Your task to perform on an android device: open app "The Home Depot" Image 0: 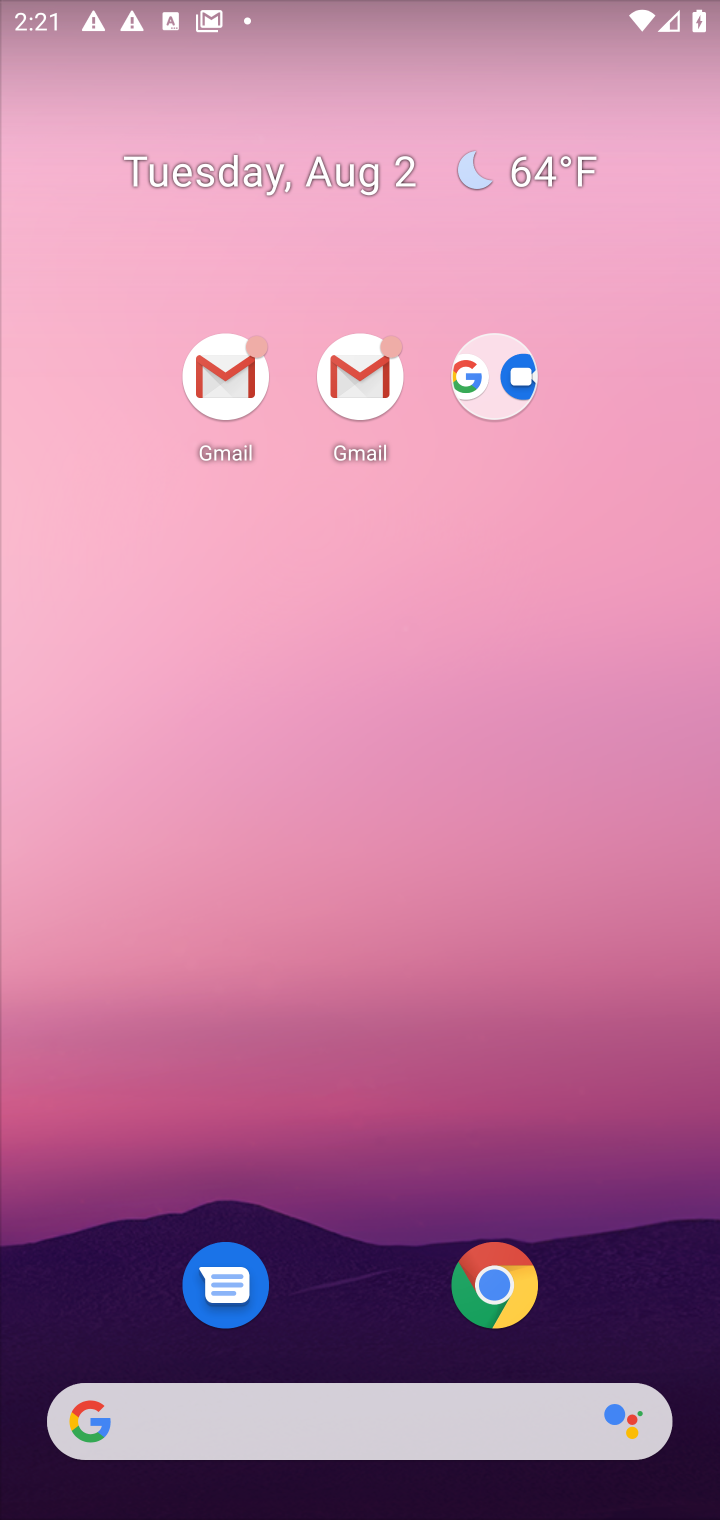
Step 0: drag from (392, 810) to (411, 206)
Your task to perform on an android device: open app "The Home Depot" Image 1: 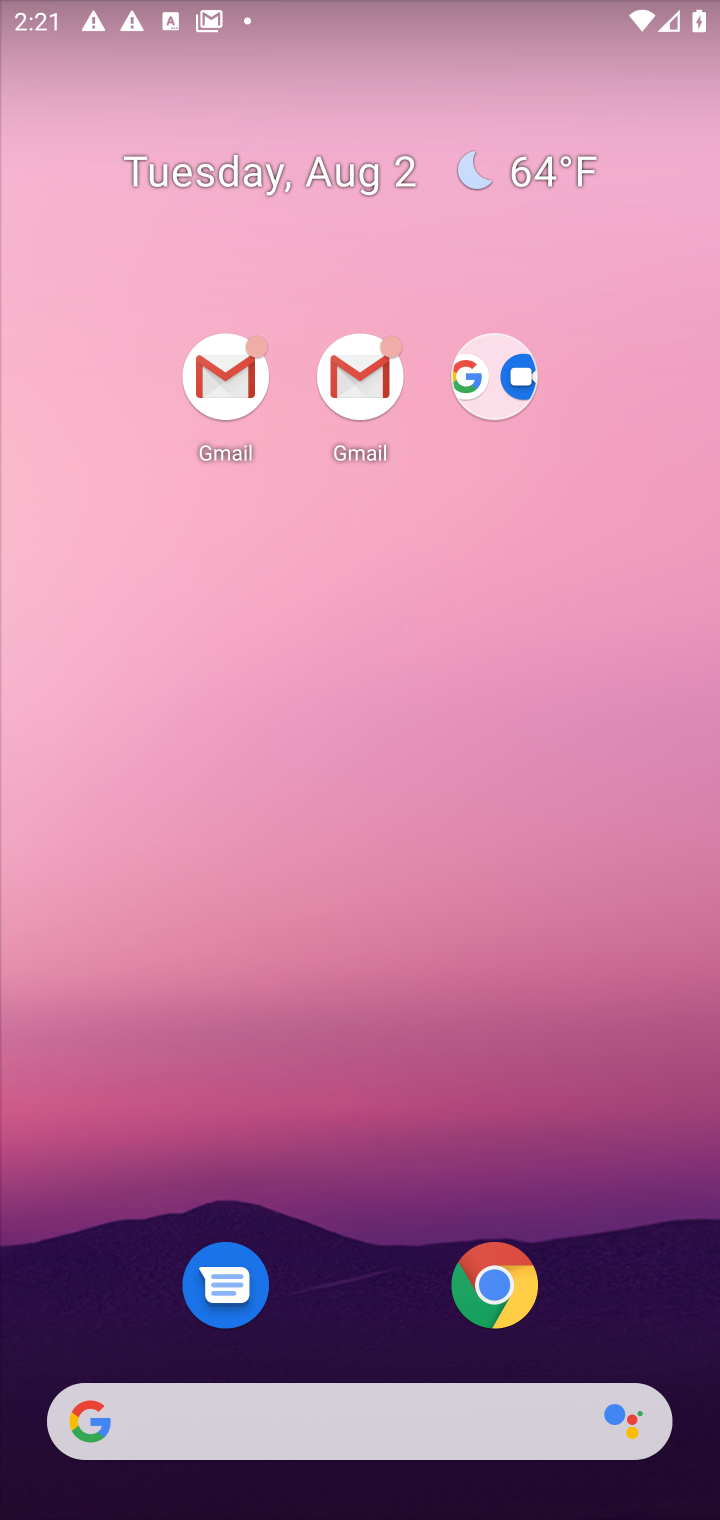
Step 1: drag from (399, 1295) to (471, 94)
Your task to perform on an android device: open app "The Home Depot" Image 2: 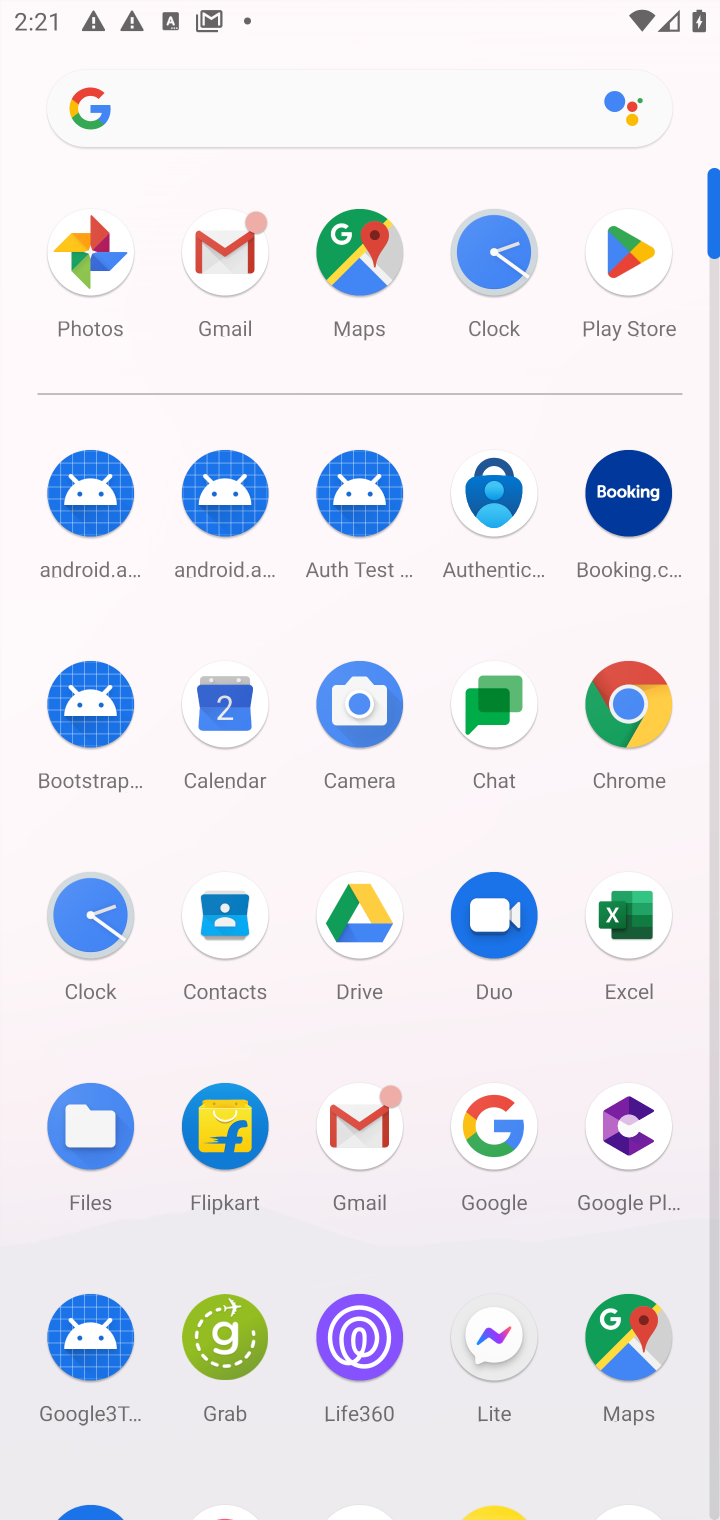
Step 2: drag from (288, 1453) to (258, 373)
Your task to perform on an android device: open app "The Home Depot" Image 3: 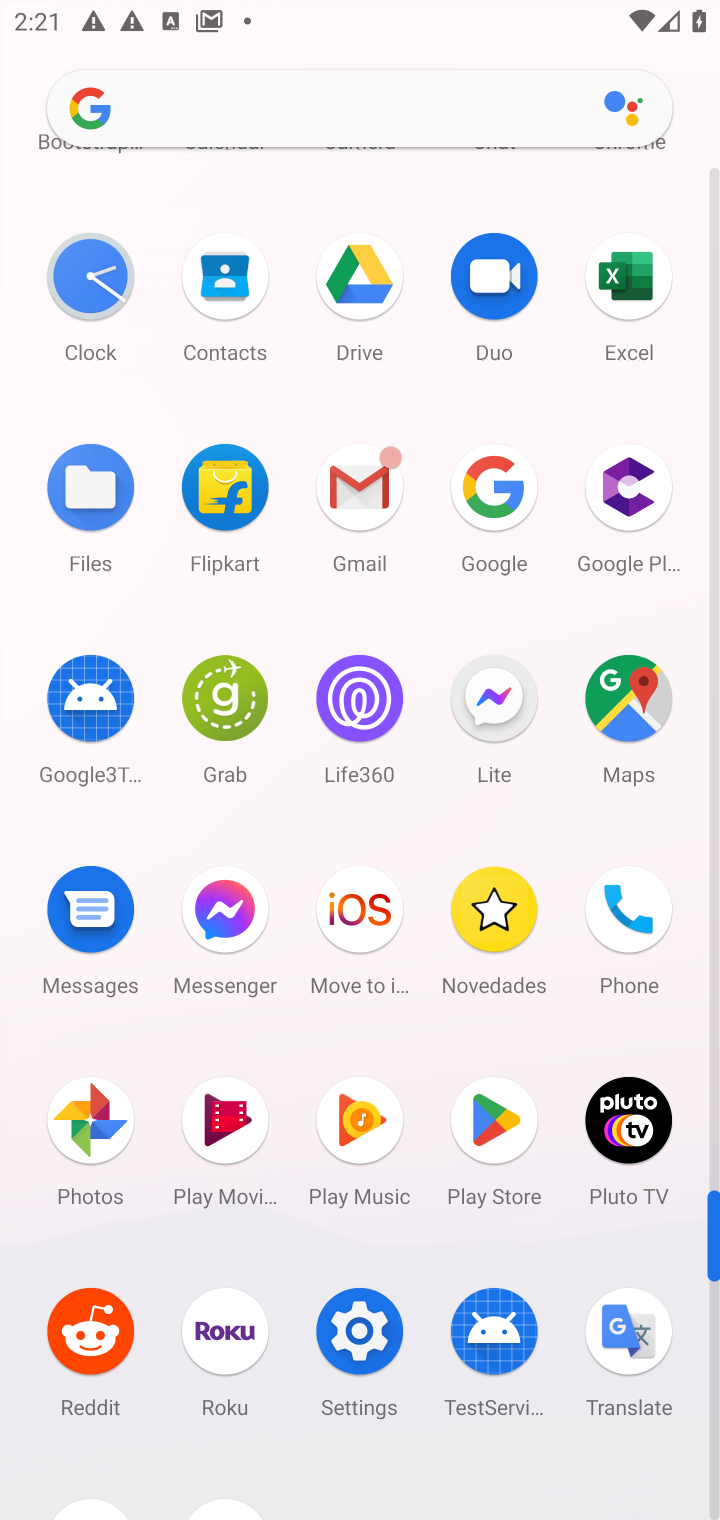
Step 3: click (495, 1132)
Your task to perform on an android device: open app "The Home Depot" Image 4: 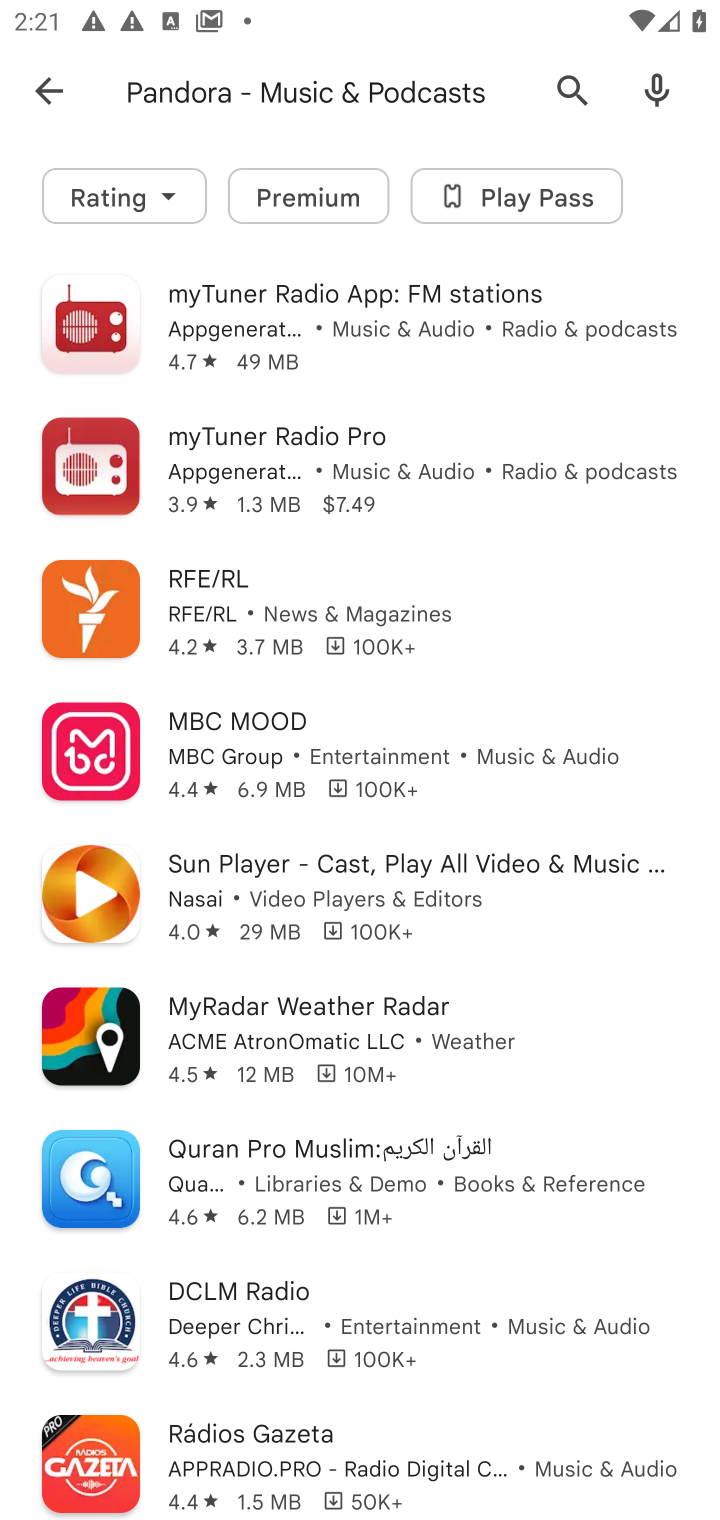
Step 4: click (401, 91)
Your task to perform on an android device: open app "The Home Depot" Image 5: 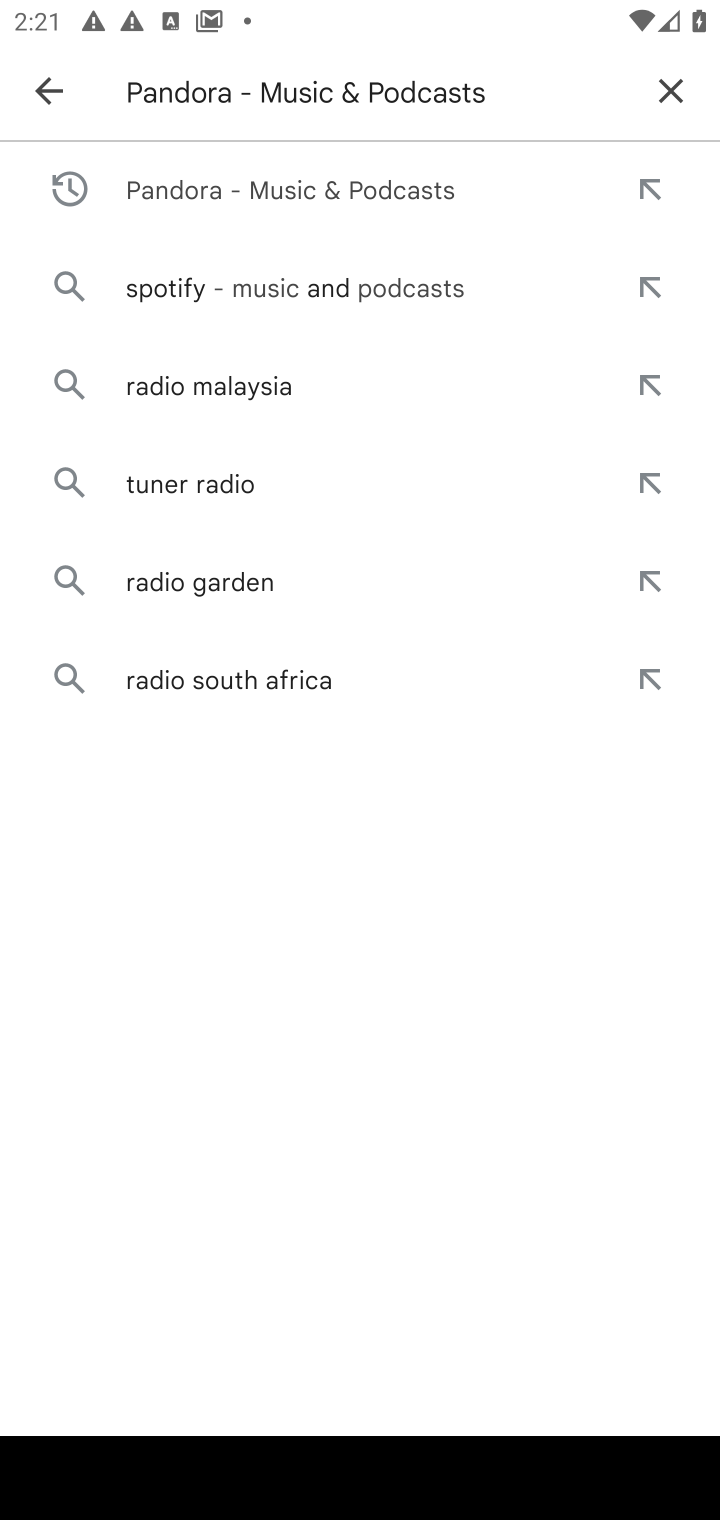
Step 5: click (676, 92)
Your task to perform on an android device: open app "The Home Depot" Image 6: 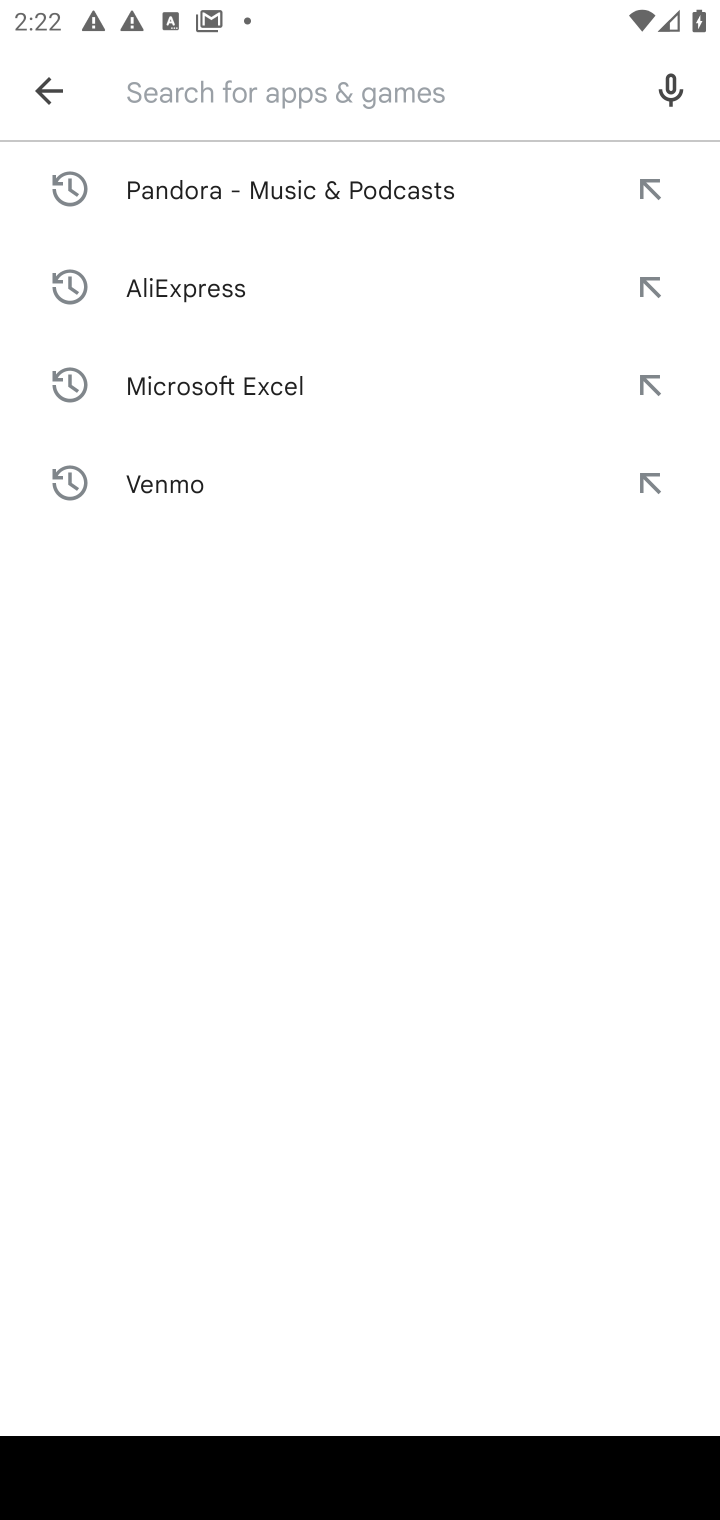
Step 6: type "The Home Depot"
Your task to perform on an android device: open app "The Home Depot" Image 7: 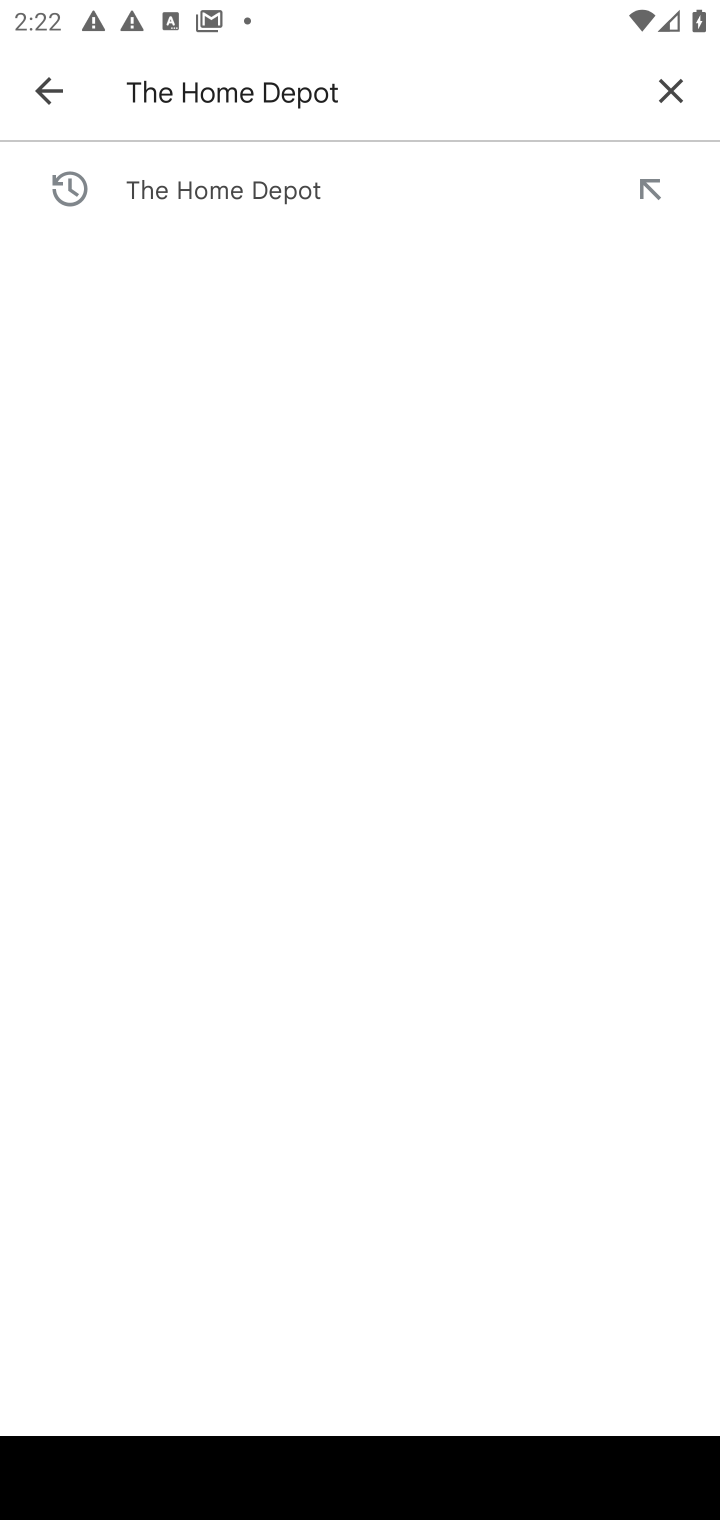
Step 7: press enter
Your task to perform on an android device: open app "The Home Depot" Image 8: 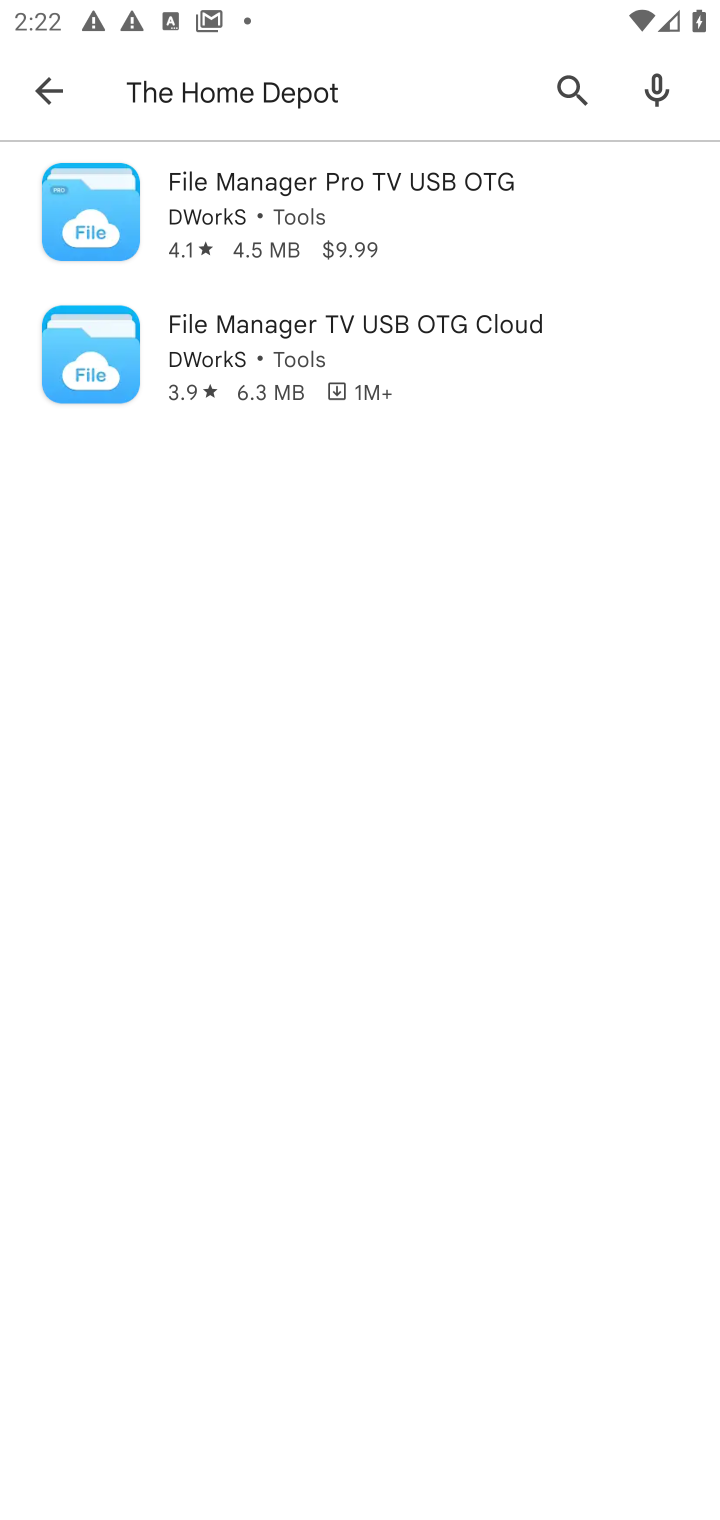
Step 8: task complete